Your task to perform on an android device: Open the calendar and show me this week's events? Image 0: 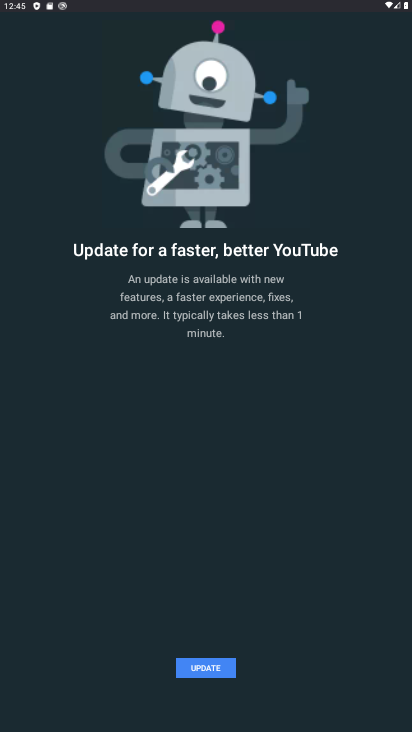
Step 0: press back button
Your task to perform on an android device: Open the calendar and show me this week's events? Image 1: 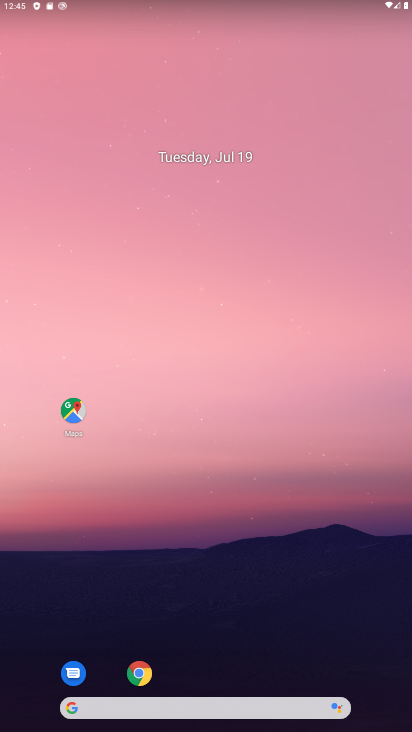
Step 1: drag from (240, 587) to (162, 61)
Your task to perform on an android device: Open the calendar and show me this week's events? Image 2: 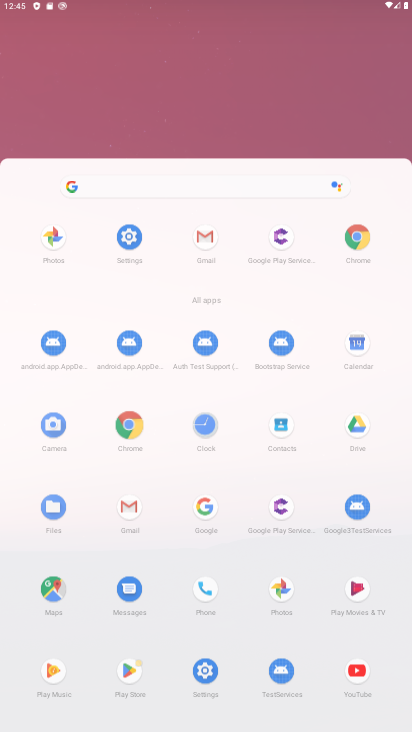
Step 2: drag from (149, 280) to (129, 238)
Your task to perform on an android device: Open the calendar and show me this week's events? Image 3: 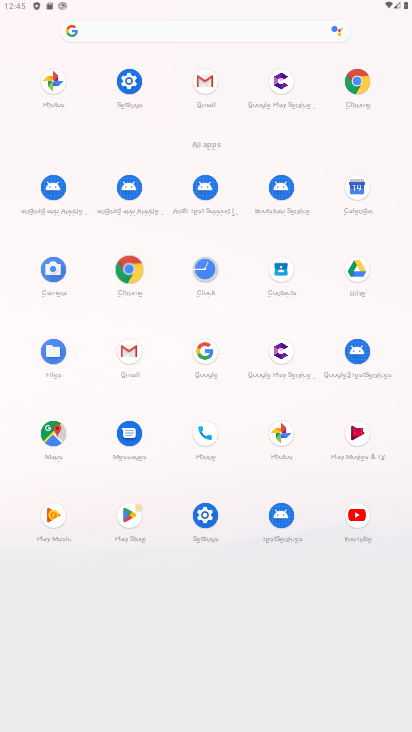
Step 3: click (357, 191)
Your task to perform on an android device: Open the calendar and show me this week's events? Image 4: 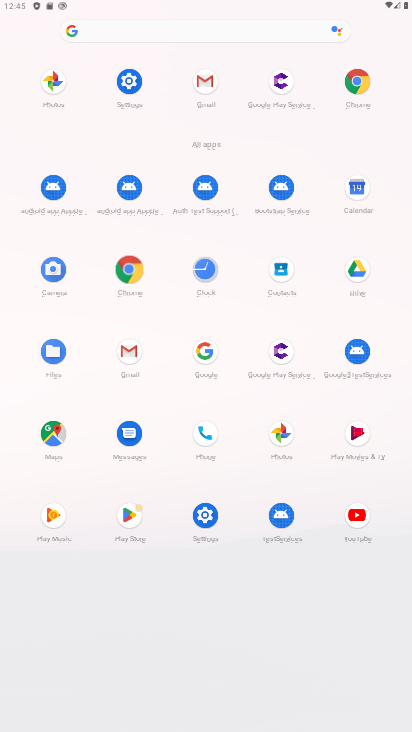
Step 4: click (357, 191)
Your task to perform on an android device: Open the calendar and show me this week's events? Image 5: 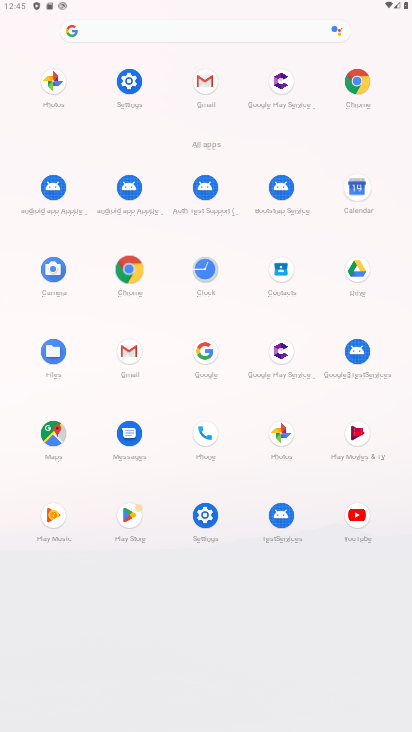
Step 5: click (357, 191)
Your task to perform on an android device: Open the calendar and show me this week's events? Image 6: 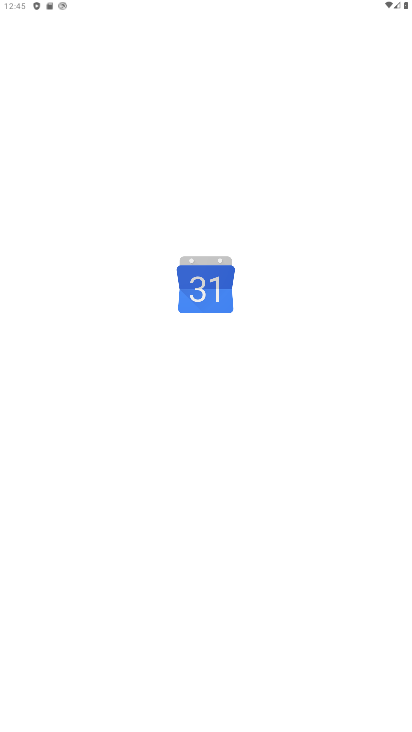
Step 6: click (357, 191)
Your task to perform on an android device: Open the calendar and show me this week's events? Image 7: 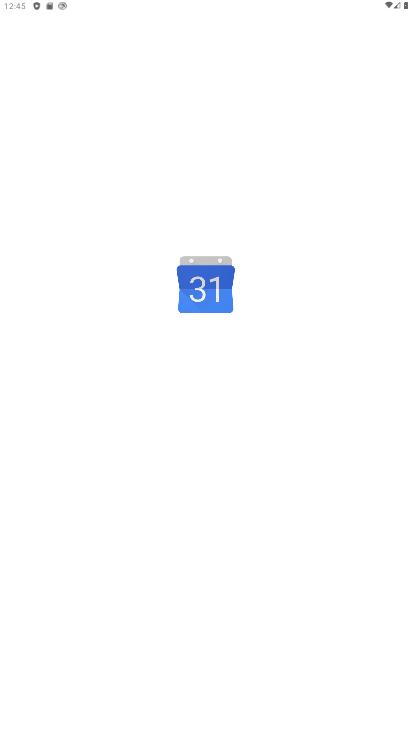
Step 7: click (357, 191)
Your task to perform on an android device: Open the calendar and show me this week's events? Image 8: 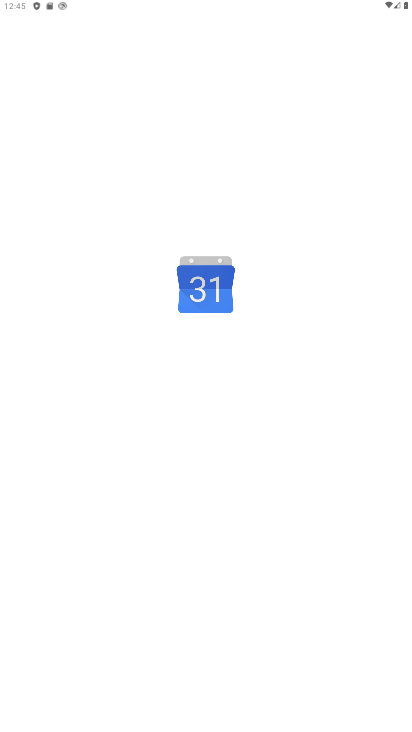
Step 8: click (356, 190)
Your task to perform on an android device: Open the calendar and show me this week's events? Image 9: 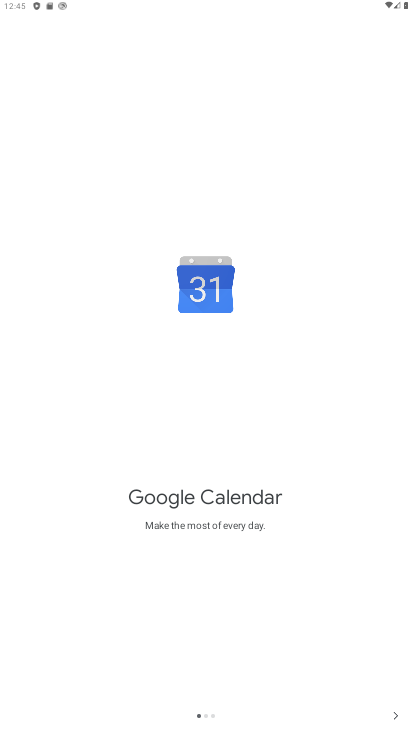
Step 9: click (397, 716)
Your task to perform on an android device: Open the calendar and show me this week's events? Image 10: 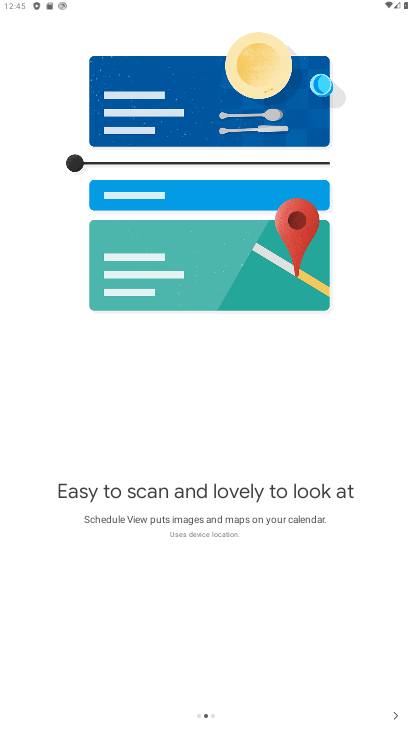
Step 10: click (400, 717)
Your task to perform on an android device: Open the calendar and show me this week's events? Image 11: 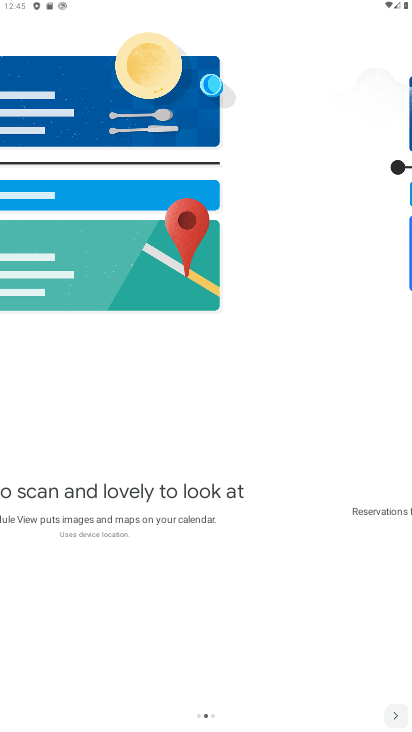
Step 11: click (400, 717)
Your task to perform on an android device: Open the calendar and show me this week's events? Image 12: 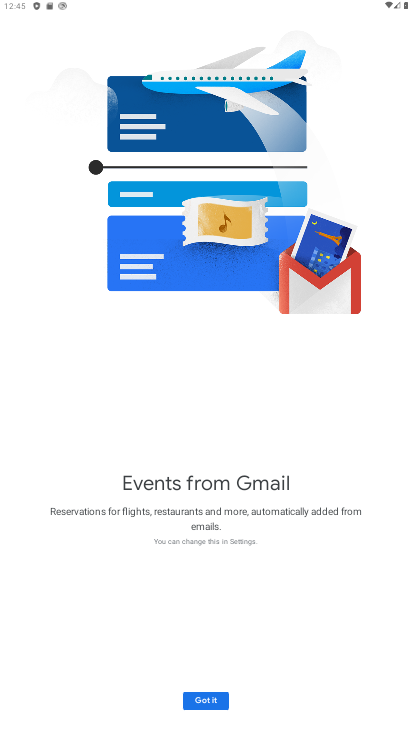
Step 12: click (208, 697)
Your task to perform on an android device: Open the calendar and show me this week's events? Image 13: 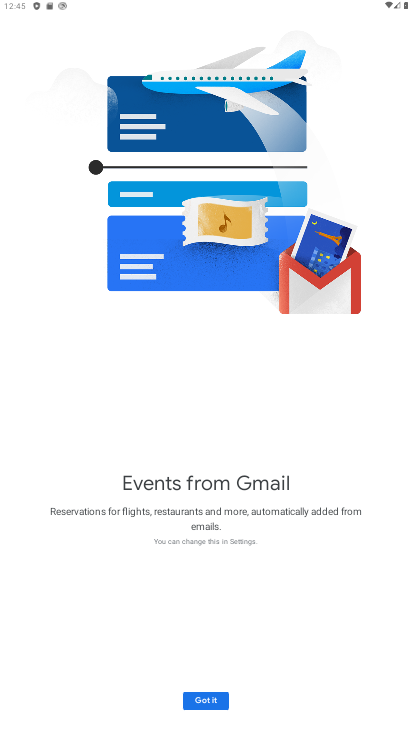
Step 13: click (206, 692)
Your task to perform on an android device: Open the calendar and show me this week's events? Image 14: 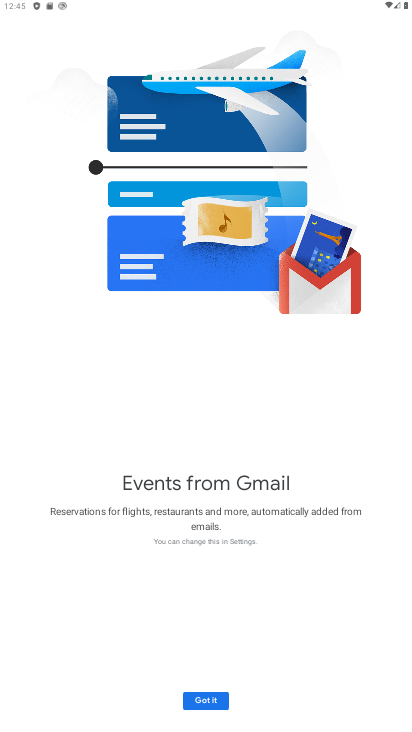
Step 14: click (217, 697)
Your task to perform on an android device: Open the calendar and show me this week's events? Image 15: 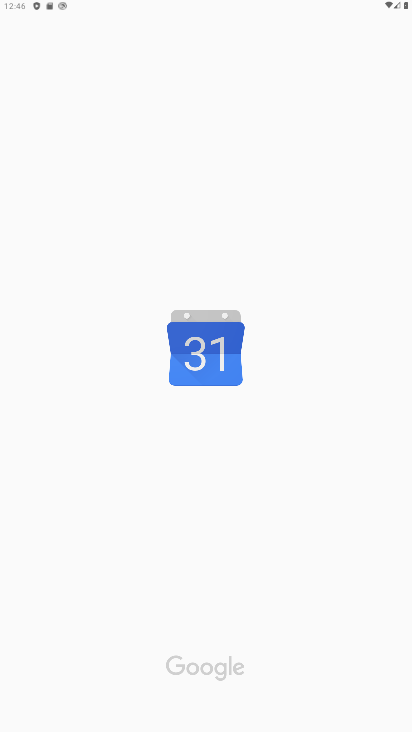
Step 15: click (217, 697)
Your task to perform on an android device: Open the calendar and show me this week's events? Image 16: 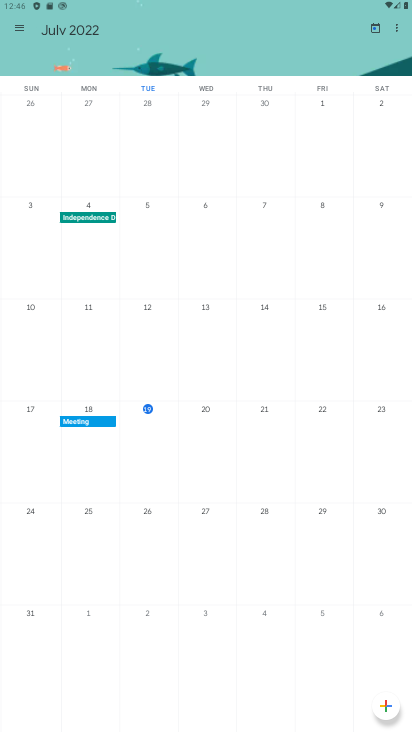
Step 16: drag from (142, 590) to (78, 597)
Your task to perform on an android device: Open the calendar and show me this week's events? Image 17: 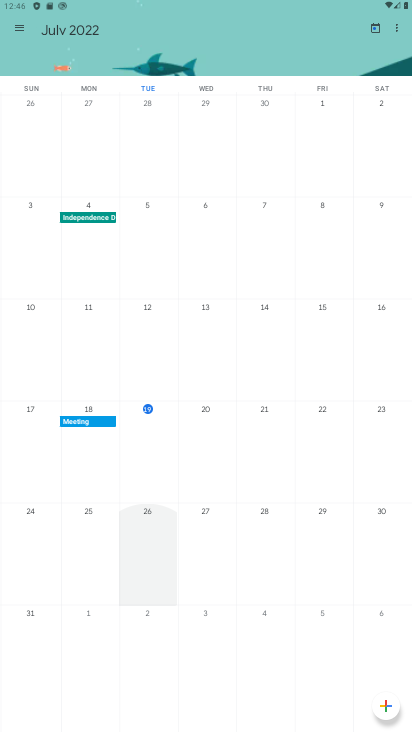
Step 17: drag from (263, 534) to (109, 512)
Your task to perform on an android device: Open the calendar and show me this week's events? Image 18: 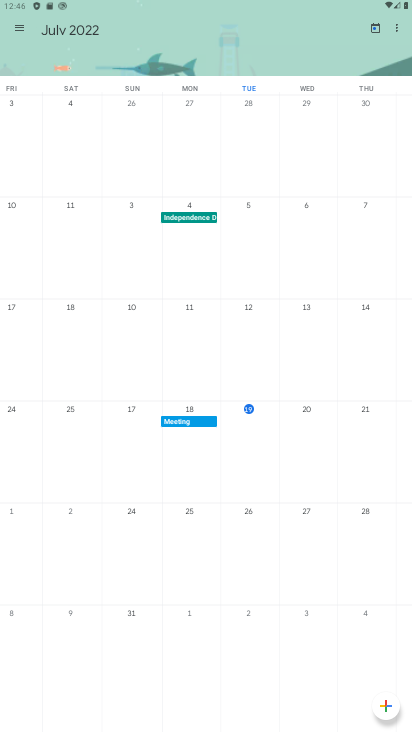
Step 18: click (358, 315)
Your task to perform on an android device: Open the calendar and show me this week's events? Image 19: 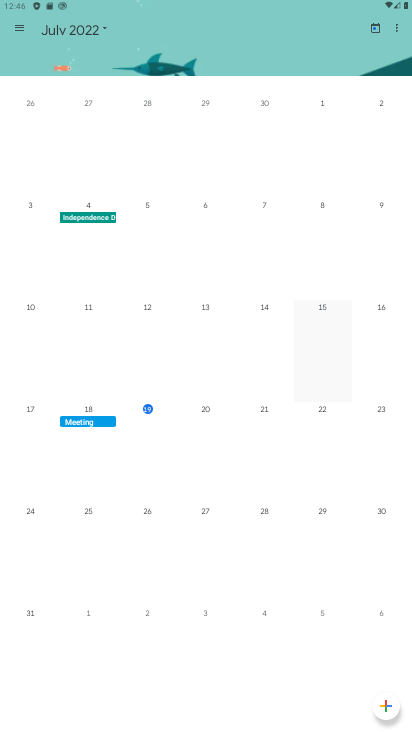
Step 19: click (222, 218)
Your task to perform on an android device: Open the calendar and show me this week's events? Image 20: 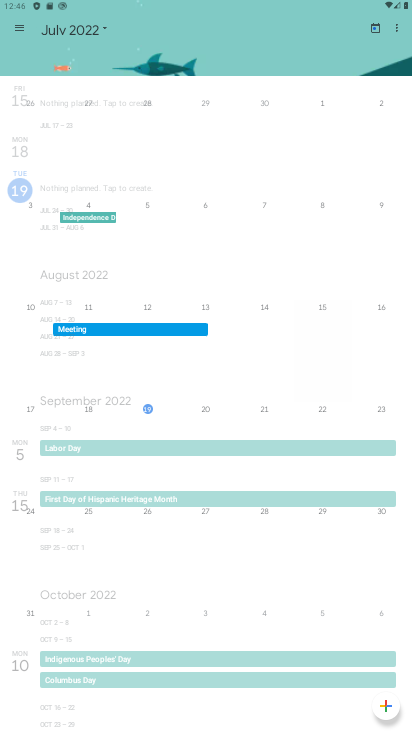
Step 20: task complete